Your task to perform on an android device: What's the weather? Image 0: 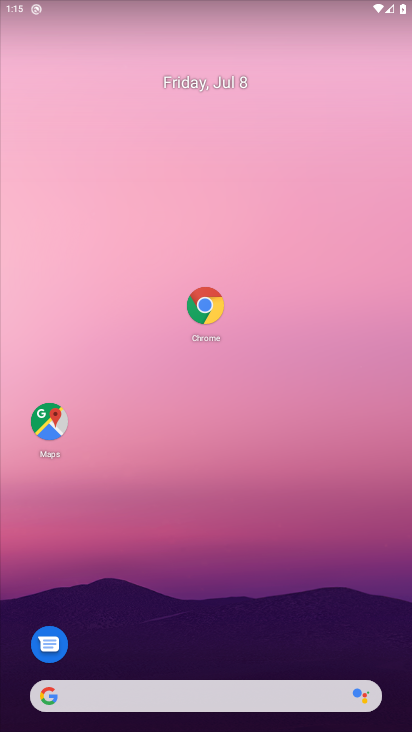
Step 0: drag from (172, 682) to (151, 239)
Your task to perform on an android device: What's the weather? Image 1: 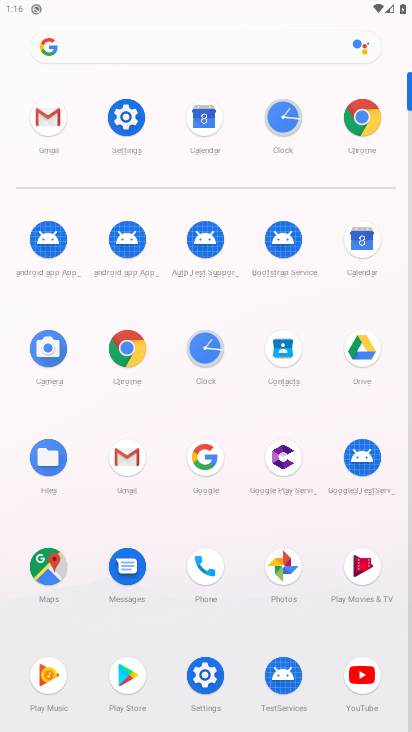
Step 1: click (201, 456)
Your task to perform on an android device: What's the weather? Image 2: 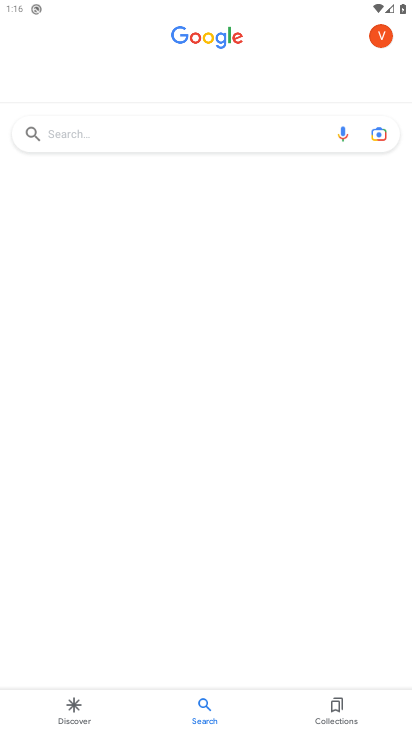
Step 2: drag from (133, 125) to (61, 125)
Your task to perform on an android device: What's the weather? Image 3: 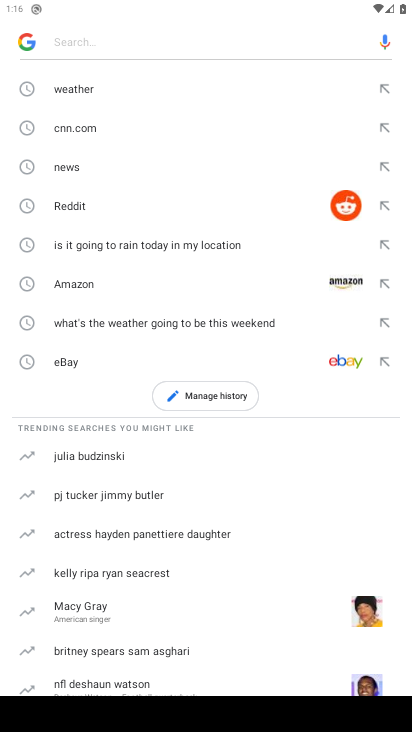
Step 3: click (81, 99)
Your task to perform on an android device: What's the weather? Image 4: 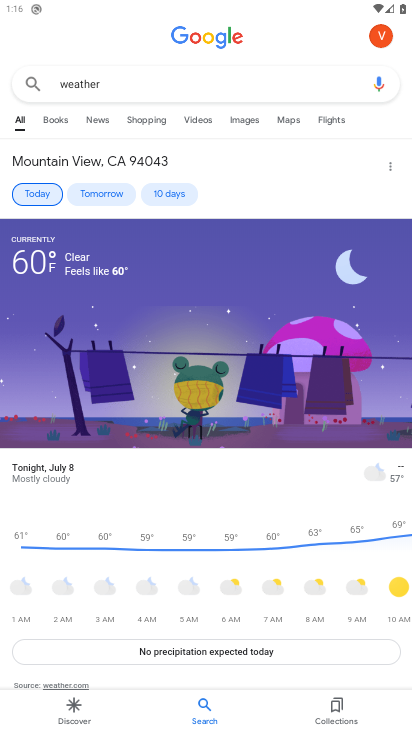
Step 4: task complete